Your task to perform on an android device: turn smart compose on in the gmail app Image 0: 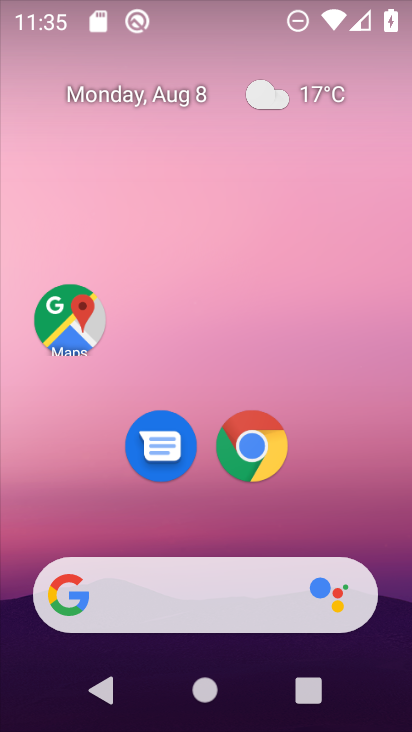
Step 0: drag from (395, 618) to (359, 167)
Your task to perform on an android device: turn smart compose on in the gmail app Image 1: 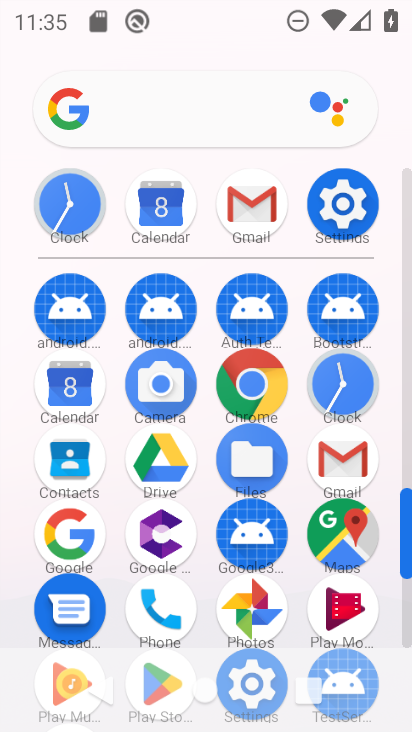
Step 1: click (408, 616)
Your task to perform on an android device: turn smart compose on in the gmail app Image 2: 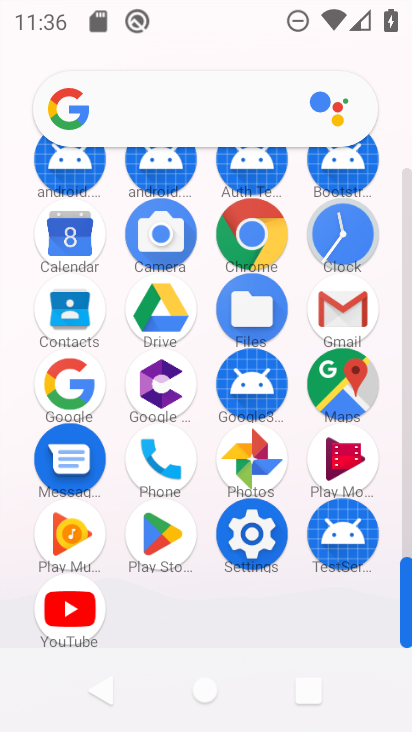
Step 2: click (341, 304)
Your task to perform on an android device: turn smart compose on in the gmail app Image 3: 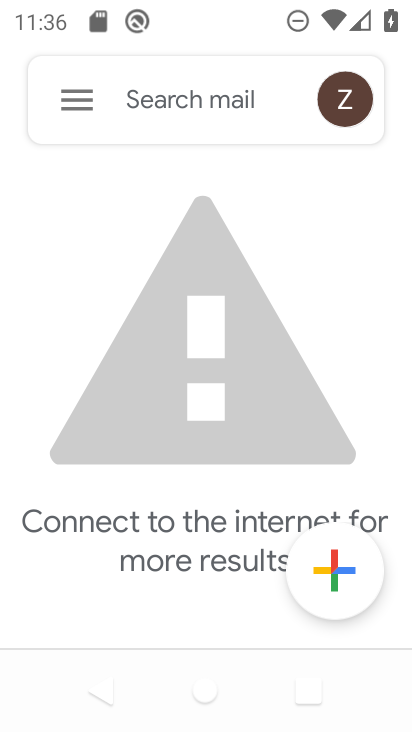
Step 3: click (69, 105)
Your task to perform on an android device: turn smart compose on in the gmail app Image 4: 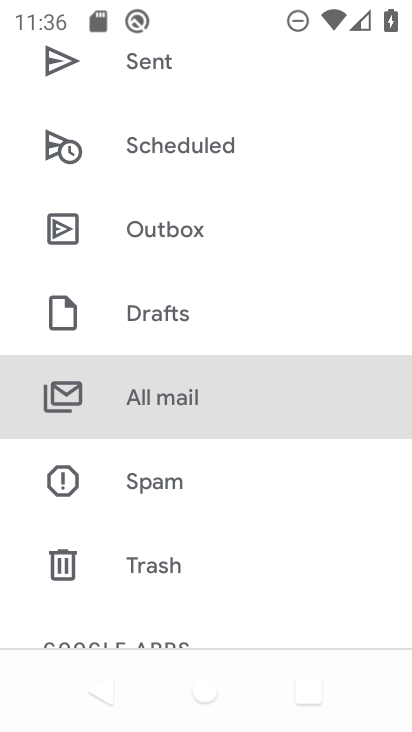
Step 4: drag from (259, 601) to (291, 188)
Your task to perform on an android device: turn smart compose on in the gmail app Image 5: 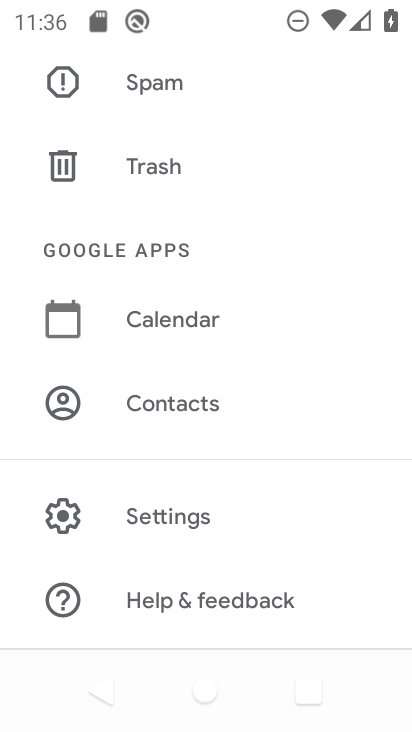
Step 5: click (172, 512)
Your task to perform on an android device: turn smart compose on in the gmail app Image 6: 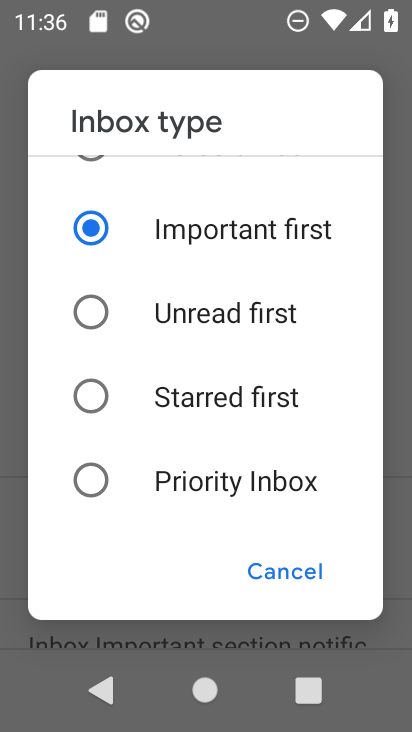
Step 6: click (288, 577)
Your task to perform on an android device: turn smart compose on in the gmail app Image 7: 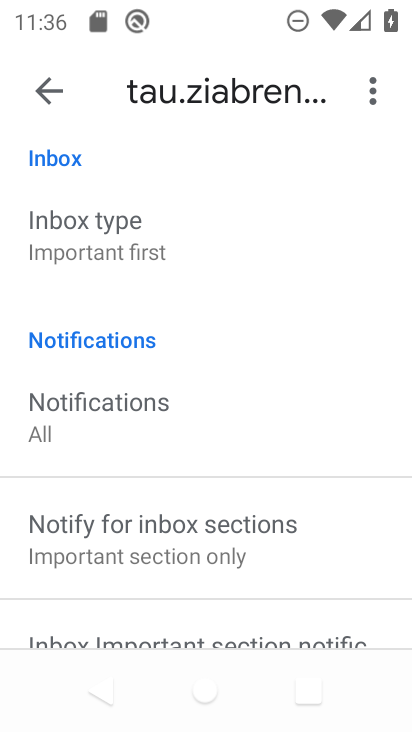
Step 7: task complete